Your task to perform on an android device: Open calendar and show me the fourth week of next month Image 0: 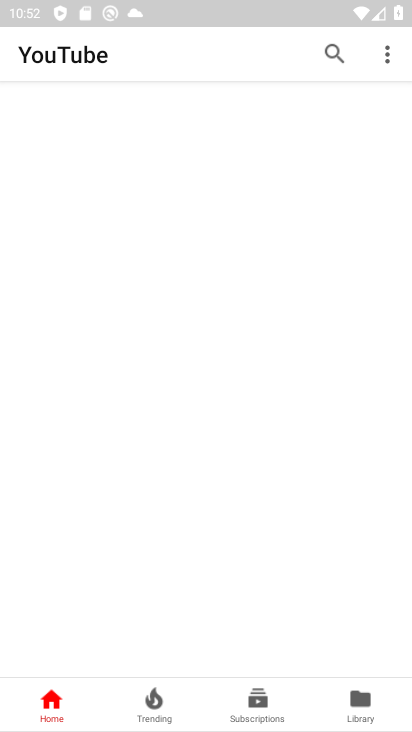
Step 0: drag from (252, 657) to (190, 28)
Your task to perform on an android device: Open calendar and show me the fourth week of next month Image 1: 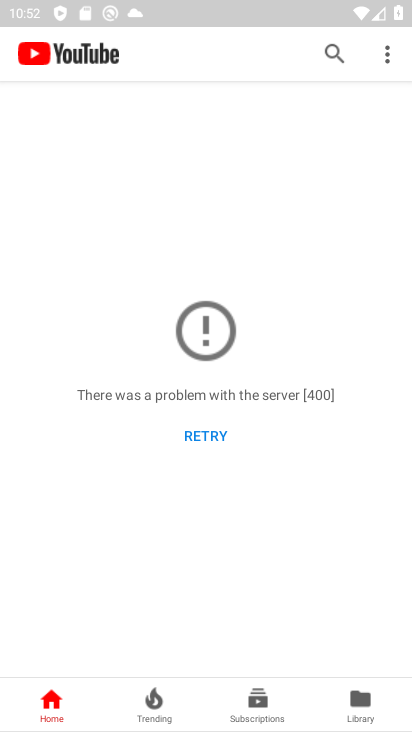
Step 1: press back button
Your task to perform on an android device: Open calendar and show me the fourth week of next month Image 2: 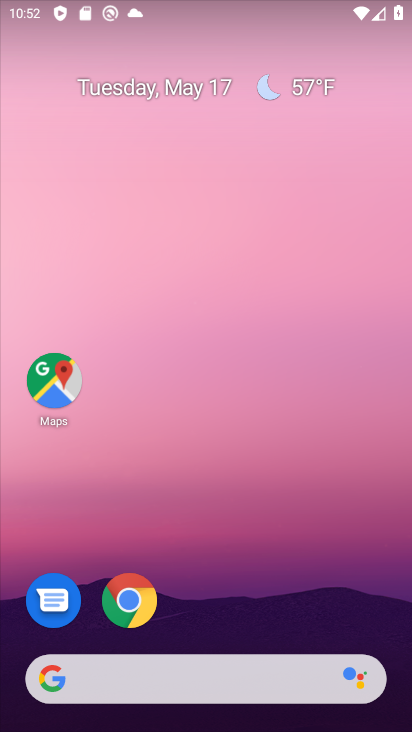
Step 2: drag from (282, 678) to (152, 175)
Your task to perform on an android device: Open calendar and show me the fourth week of next month Image 3: 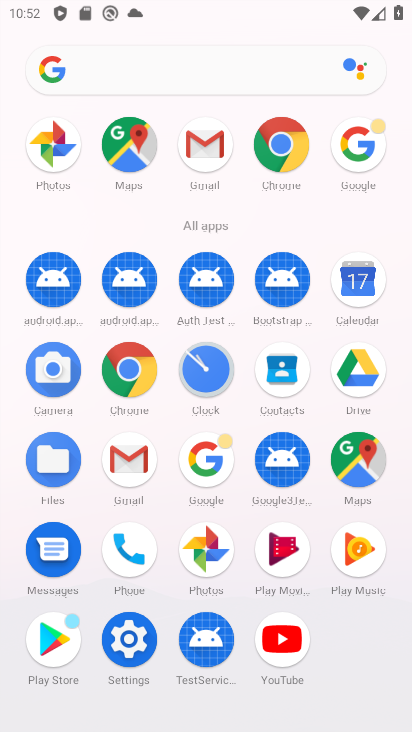
Step 3: click (355, 285)
Your task to perform on an android device: Open calendar and show me the fourth week of next month Image 4: 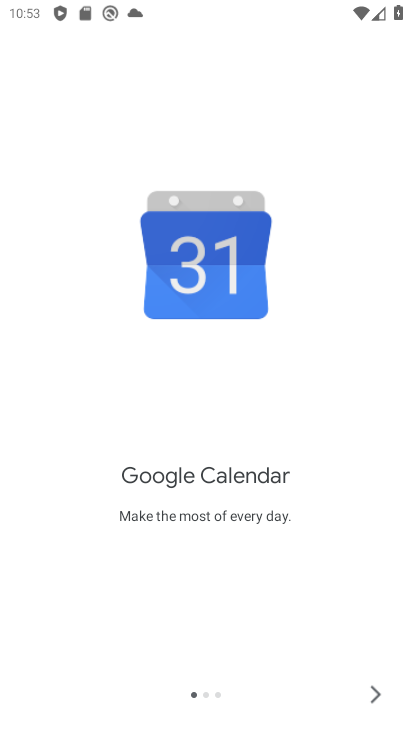
Step 4: click (393, 688)
Your task to perform on an android device: Open calendar and show me the fourth week of next month Image 5: 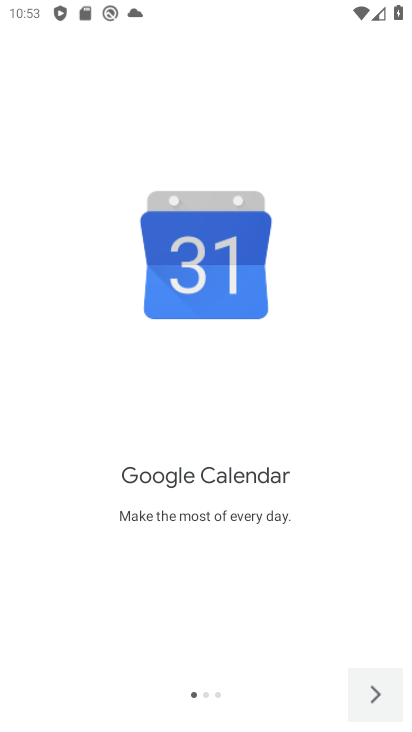
Step 5: click (377, 697)
Your task to perform on an android device: Open calendar and show me the fourth week of next month Image 6: 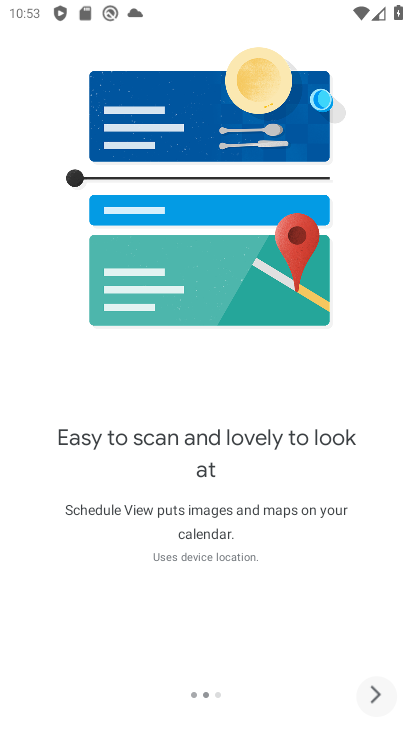
Step 6: click (377, 697)
Your task to perform on an android device: Open calendar and show me the fourth week of next month Image 7: 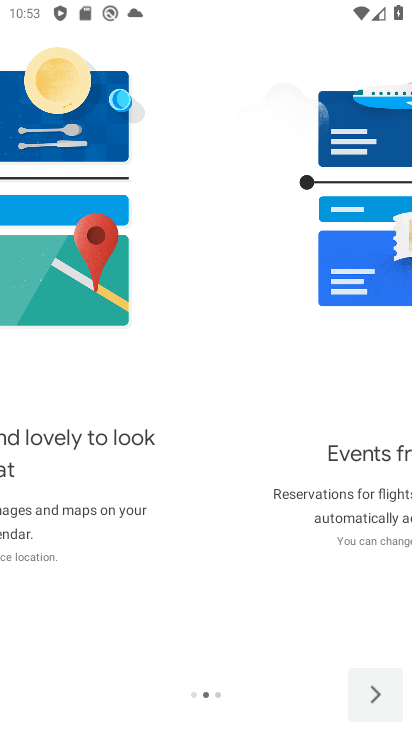
Step 7: click (376, 697)
Your task to perform on an android device: Open calendar and show me the fourth week of next month Image 8: 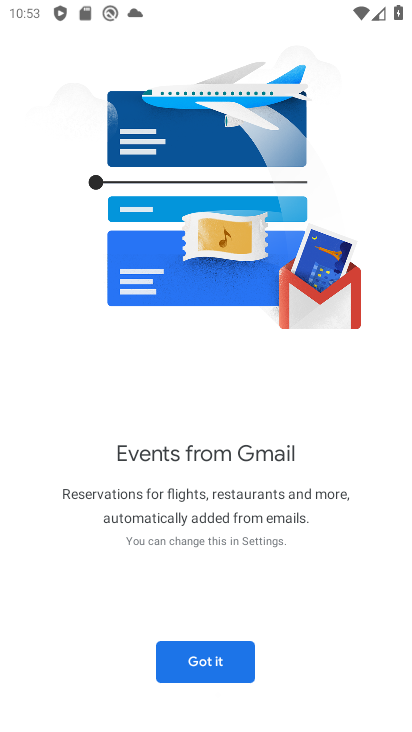
Step 8: click (375, 693)
Your task to perform on an android device: Open calendar and show me the fourth week of next month Image 9: 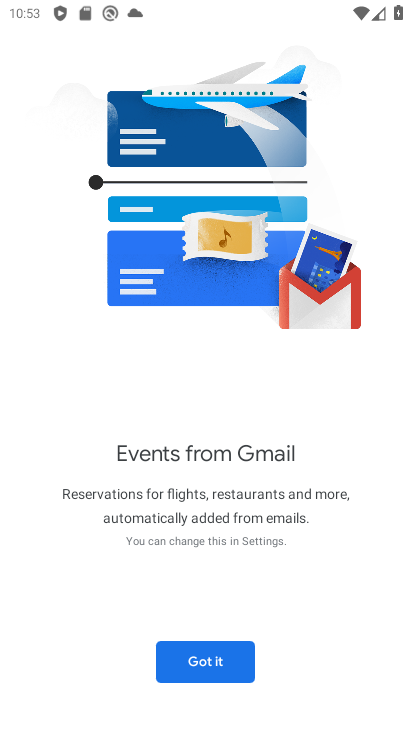
Step 9: drag from (222, 656) to (198, 706)
Your task to perform on an android device: Open calendar and show me the fourth week of next month Image 10: 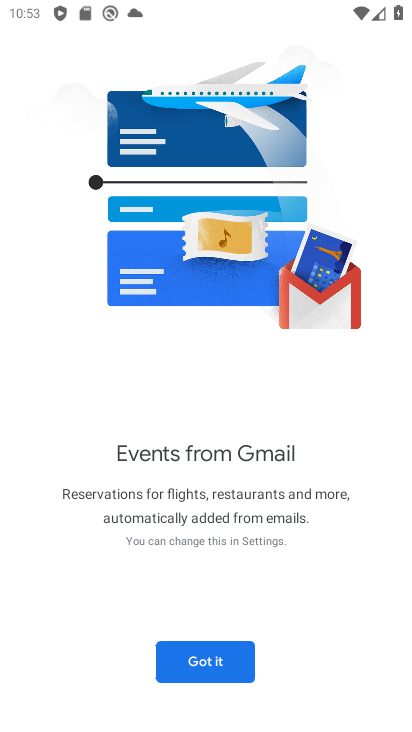
Step 10: click (216, 663)
Your task to perform on an android device: Open calendar and show me the fourth week of next month Image 11: 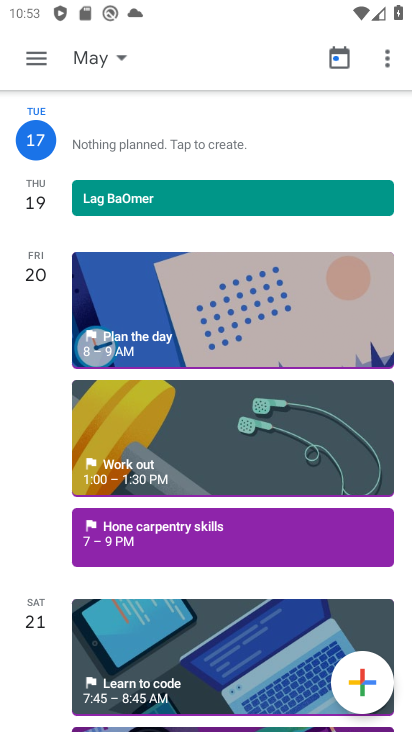
Step 11: click (126, 49)
Your task to perform on an android device: Open calendar and show me the fourth week of next month Image 12: 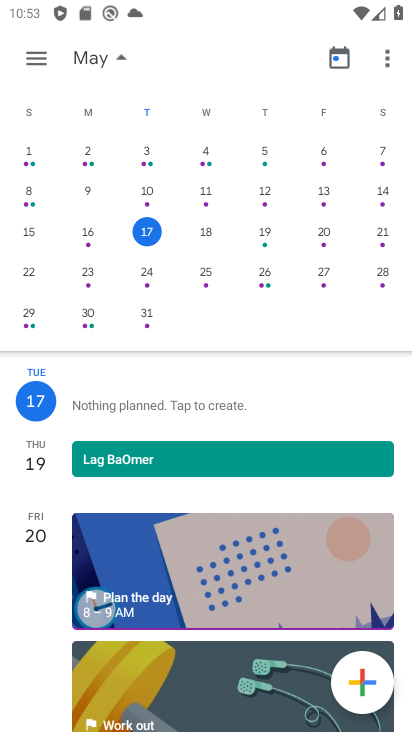
Step 12: drag from (271, 210) to (39, 208)
Your task to perform on an android device: Open calendar and show me the fourth week of next month Image 13: 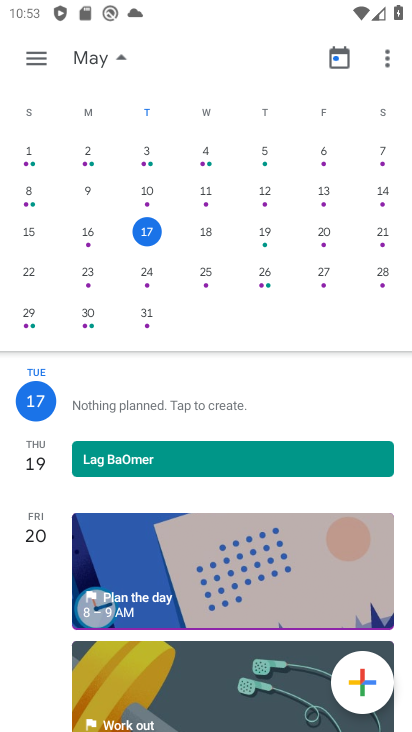
Step 13: click (28, 221)
Your task to perform on an android device: Open calendar and show me the fourth week of next month Image 14: 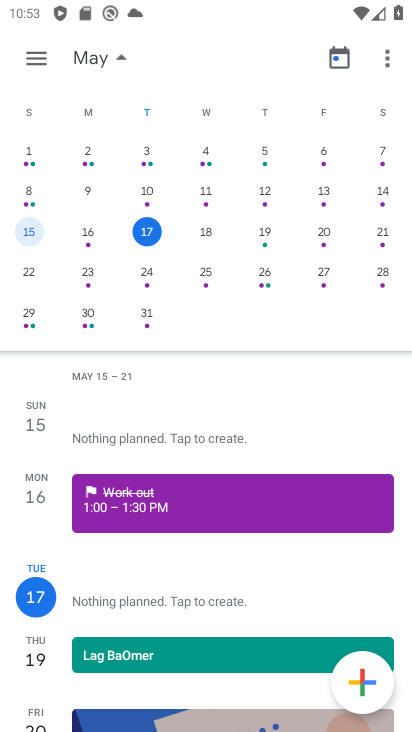
Step 14: drag from (302, 227) to (55, 263)
Your task to perform on an android device: Open calendar and show me the fourth week of next month Image 15: 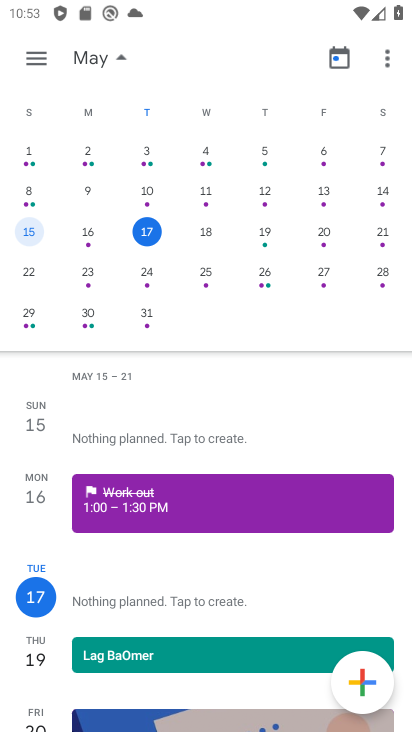
Step 15: drag from (315, 204) to (110, 261)
Your task to perform on an android device: Open calendar and show me the fourth week of next month Image 16: 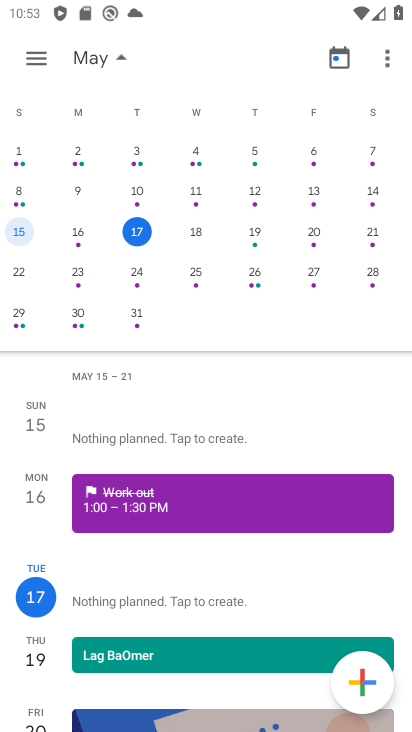
Step 16: drag from (296, 200) to (131, 234)
Your task to perform on an android device: Open calendar and show me the fourth week of next month Image 17: 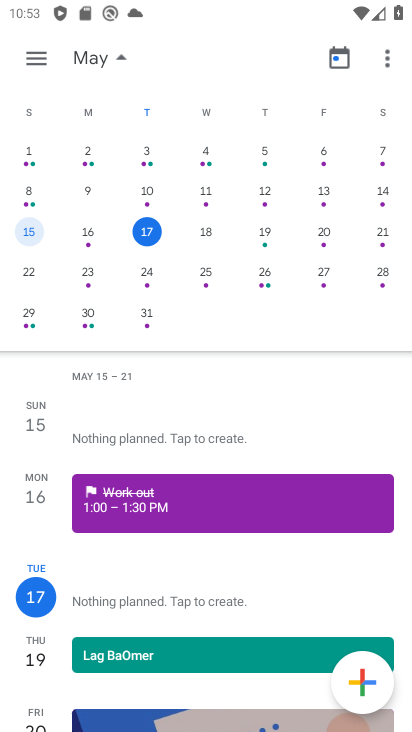
Step 17: drag from (343, 204) to (54, 283)
Your task to perform on an android device: Open calendar and show me the fourth week of next month Image 18: 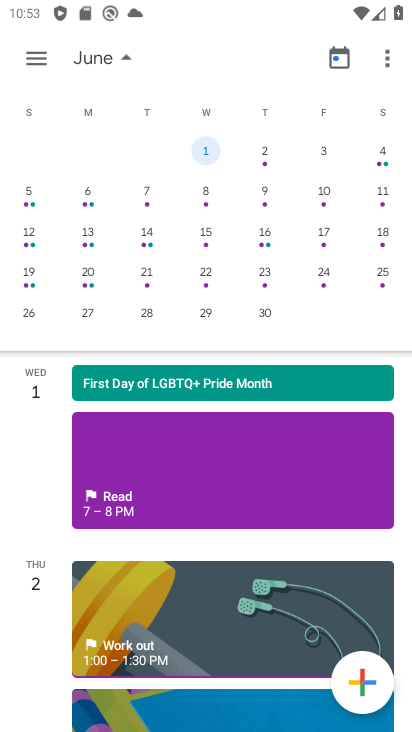
Step 18: drag from (226, 194) to (11, 238)
Your task to perform on an android device: Open calendar and show me the fourth week of next month Image 19: 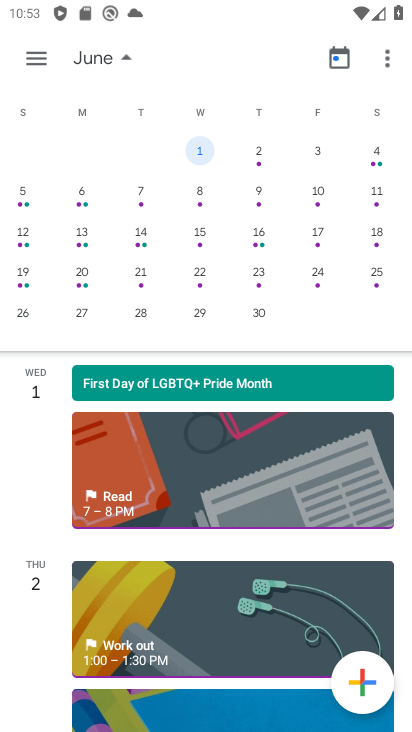
Step 19: drag from (271, 188) to (16, 229)
Your task to perform on an android device: Open calendar and show me the fourth week of next month Image 20: 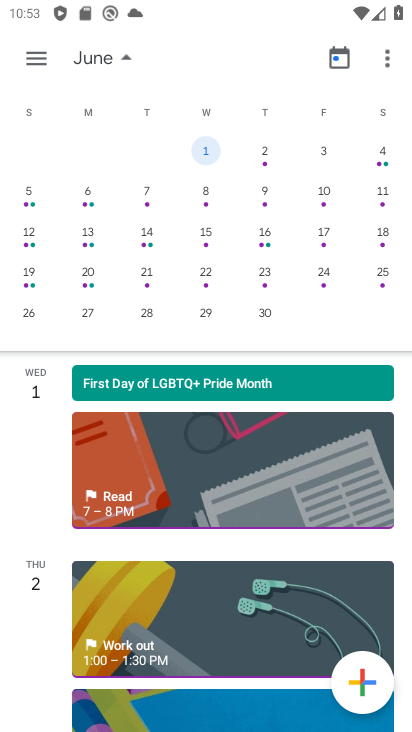
Step 20: click (208, 263)
Your task to perform on an android device: Open calendar and show me the fourth week of next month Image 21: 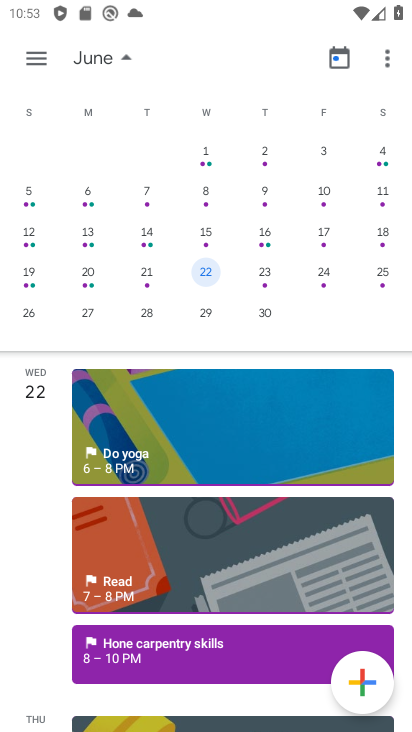
Step 21: click (200, 273)
Your task to perform on an android device: Open calendar and show me the fourth week of next month Image 22: 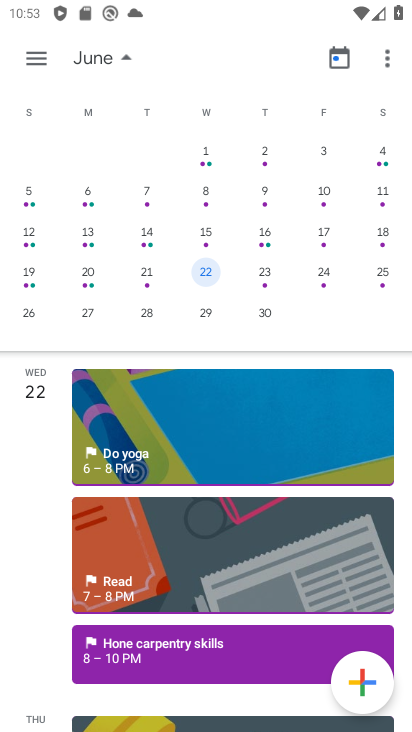
Step 22: click (200, 273)
Your task to perform on an android device: Open calendar and show me the fourth week of next month Image 23: 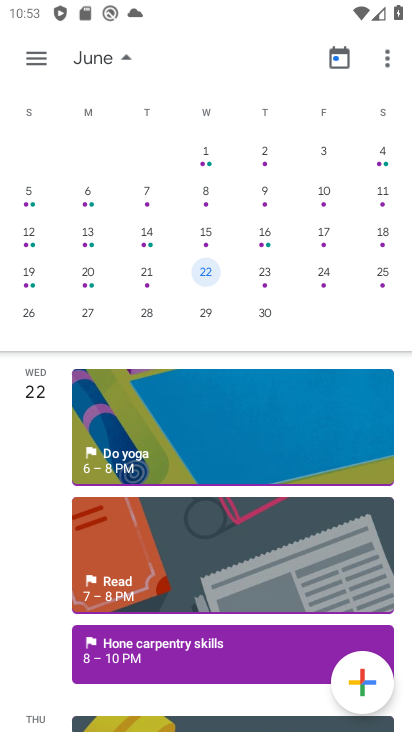
Step 23: task complete